Your task to perform on an android device: Open wifi settings Image 0: 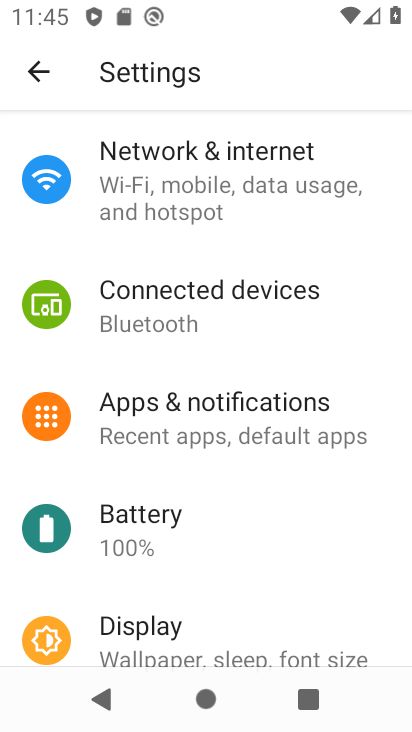
Step 0: click (188, 205)
Your task to perform on an android device: Open wifi settings Image 1: 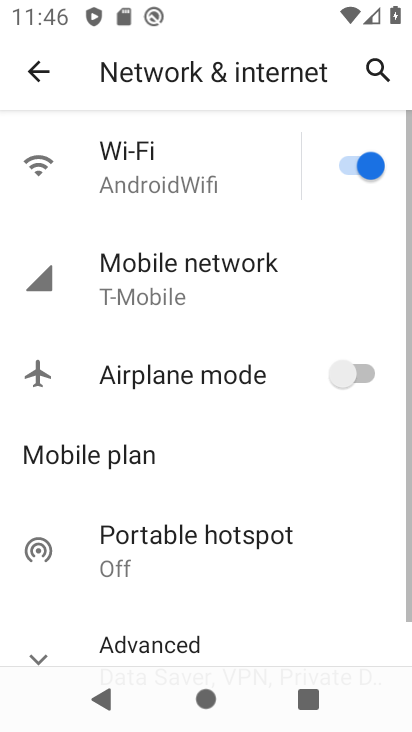
Step 1: click (214, 182)
Your task to perform on an android device: Open wifi settings Image 2: 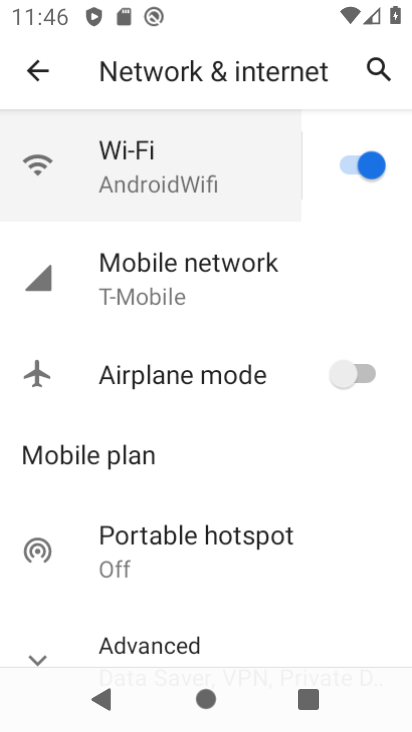
Step 2: click (200, 177)
Your task to perform on an android device: Open wifi settings Image 3: 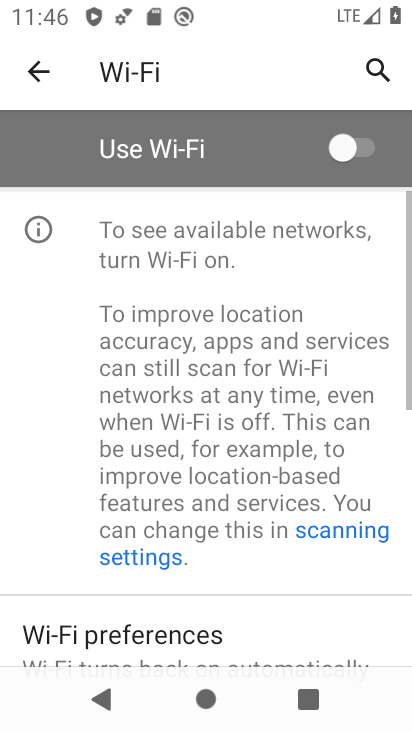
Step 3: task complete